Your task to perform on an android device: change the clock display to digital Image 0: 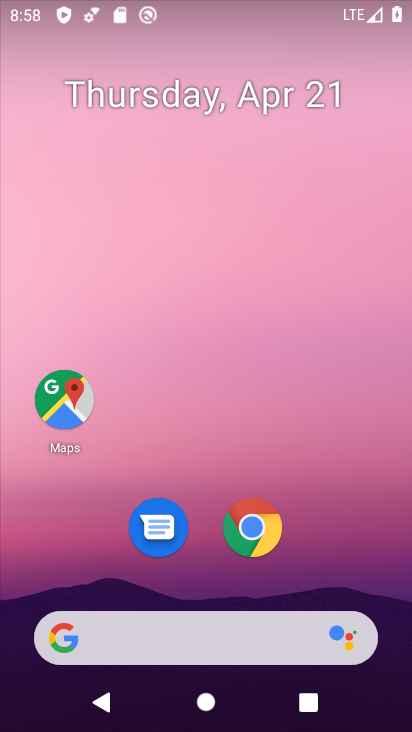
Step 0: drag from (213, 515) to (213, 74)
Your task to perform on an android device: change the clock display to digital Image 1: 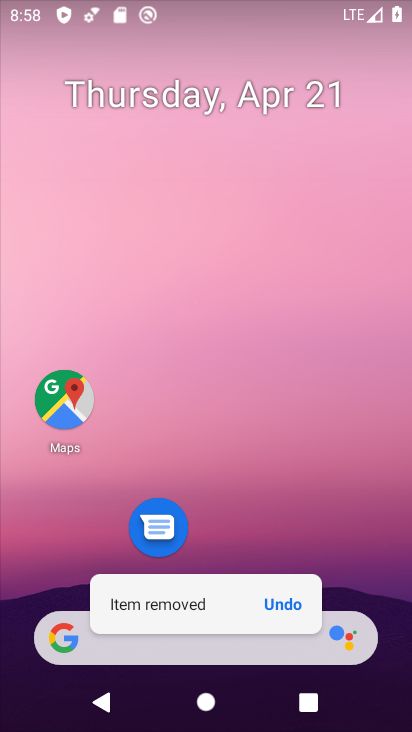
Step 1: click (291, 597)
Your task to perform on an android device: change the clock display to digital Image 2: 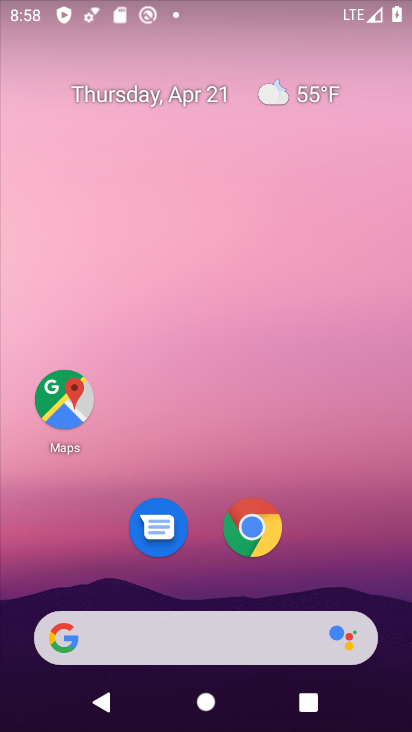
Step 2: drag from (324, 581) to (315, 48)
Your task to perform on an android device: change the clock display to digital Image 3: 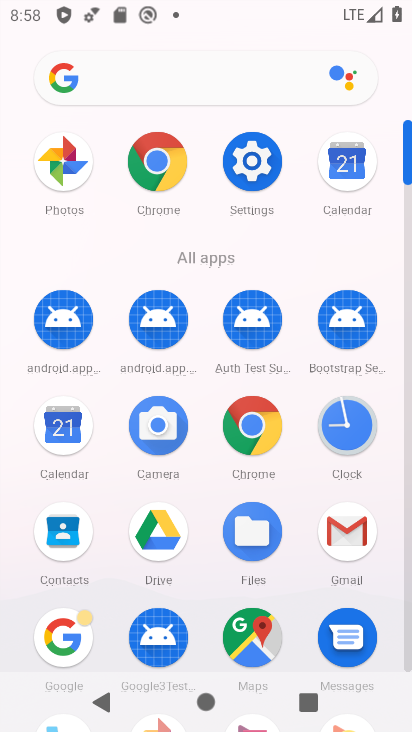
Step 3: click (345, 426)
Your task to perform on an android device: change the clock display to digital Image 4: 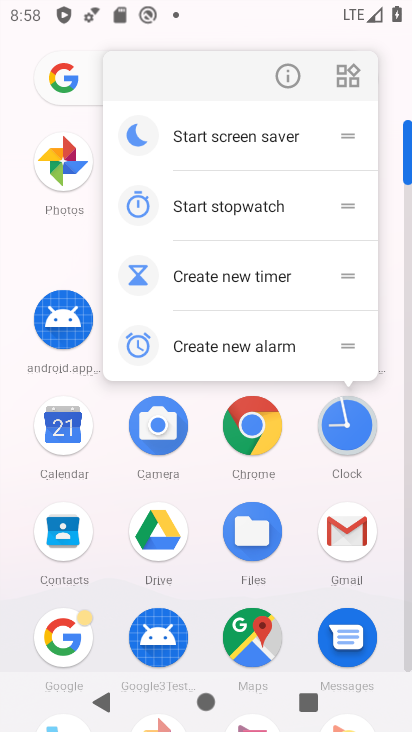
Step 4: click (343, 418)
Your task to perform on an android device: change the clock display to digital Image 5: 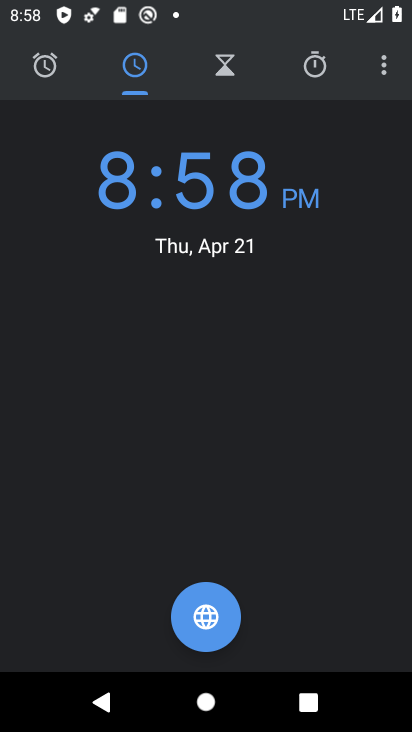
Step 5: click (387, 60)
Your task to perform on an android device: change the clock display to digital Image 6: 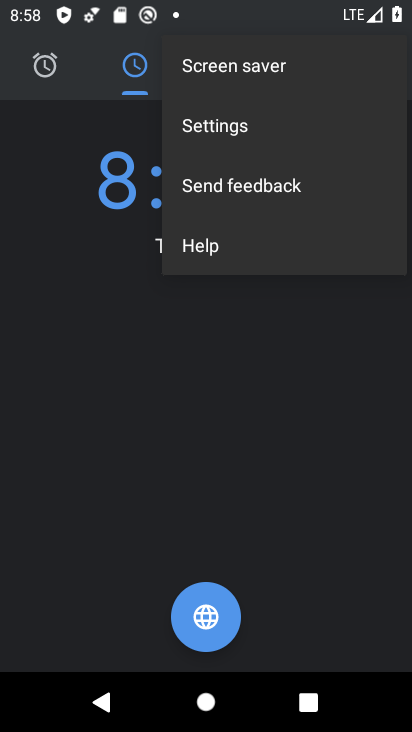
Step 6: click (261, 126)
Your task to perform on an android device: change the clock display to digital Image 7: 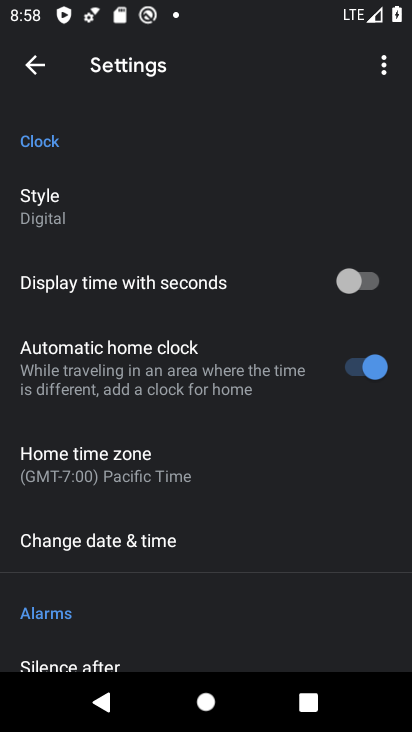
Step 7: click (91, 207)
Your task to perform on an android device: change the clock display to digital Image 8: 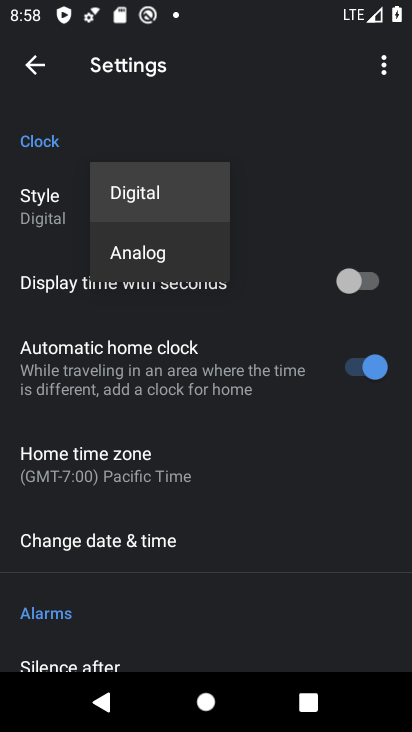
Step 8: click (151, 188)
Your task to perform on an android device: change the clock display to digital Image 9: 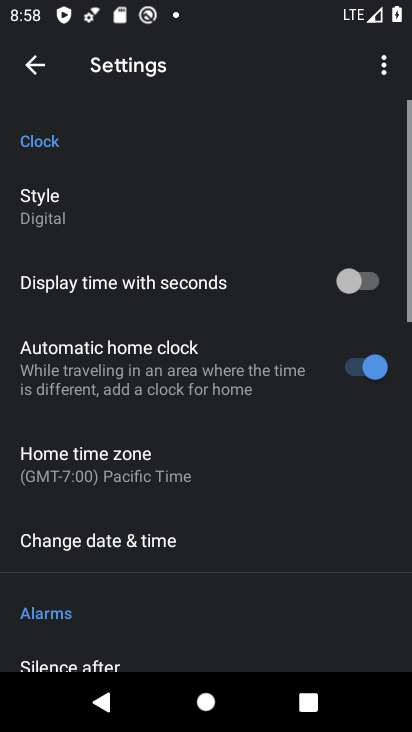
Step 9: task complete